Your task to perform on an android device: Go to CNN.com Image 0: 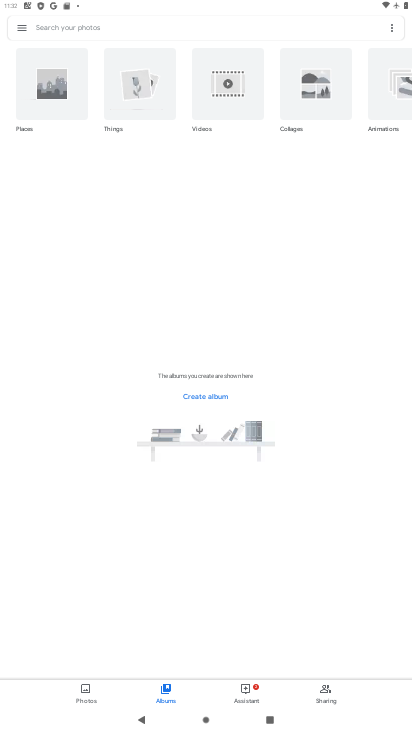
Step 0: press home button
Your task to perform on an android device: Go to CNN.com Image 1: 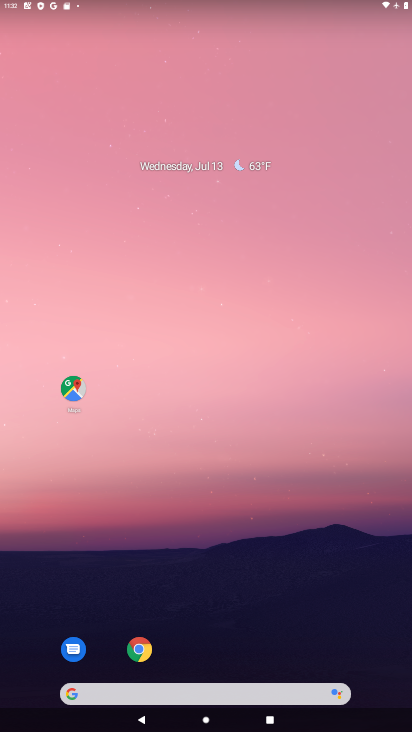
Step 1: drag from (210, 615) to (227, 111)
Your task to perform on an android device: Go to CNN.com Image 2: 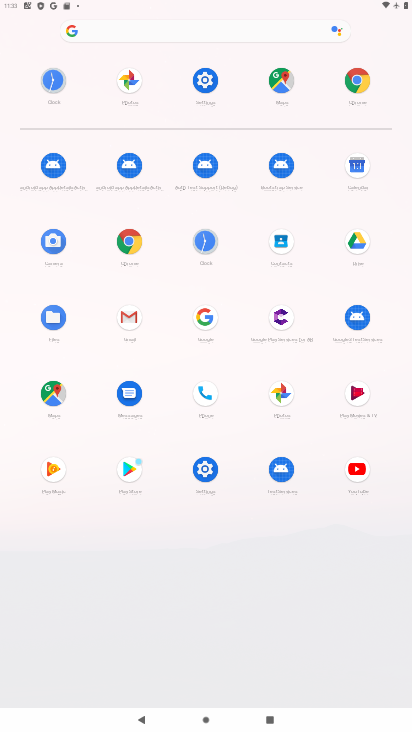
Step 2: click (362, 83)
Your task to perform on an android device: Go to CNN.com Image 3: 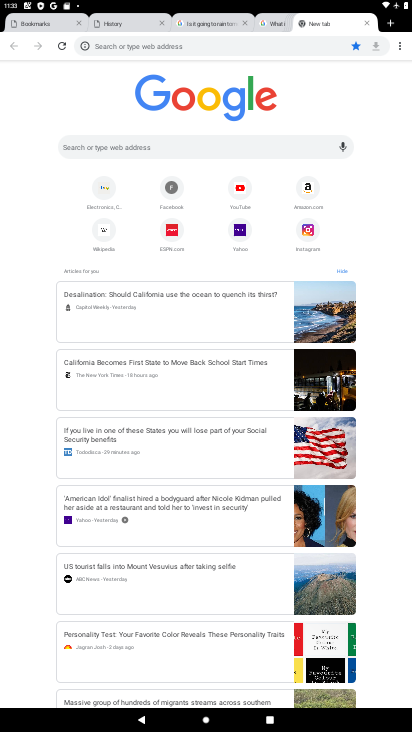
Step 3: click (188, 135)
Your task to perform on an android device: Go to CNN.com Image 4: 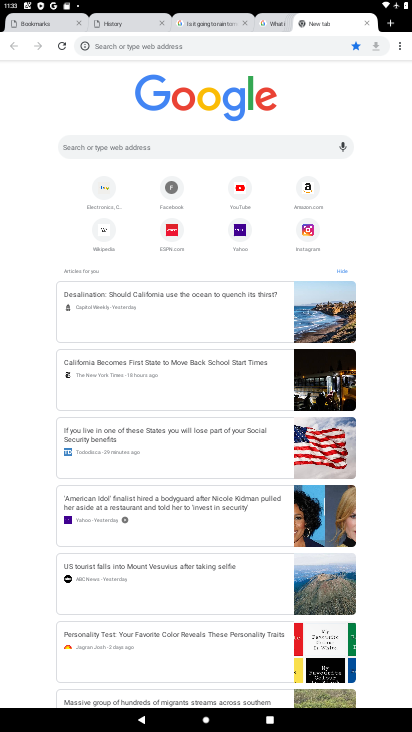
Step 4: type " CNN.com "
Your task to perform on an android device: Go to CNN.com Image 5: 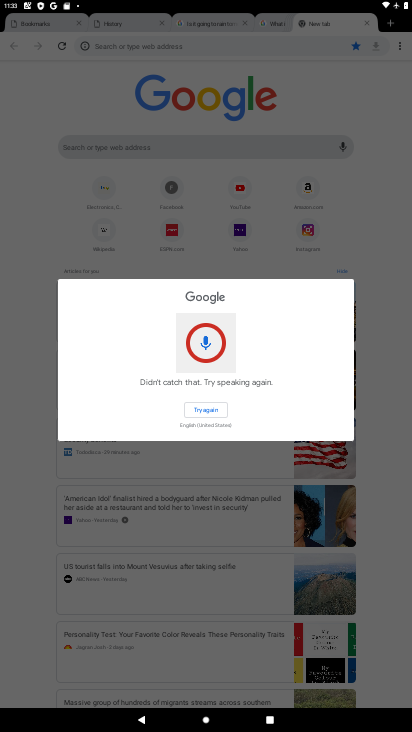
Step 5: click (333, 254)
Your task to perform on an android device: Go to CNN.com Image 6: 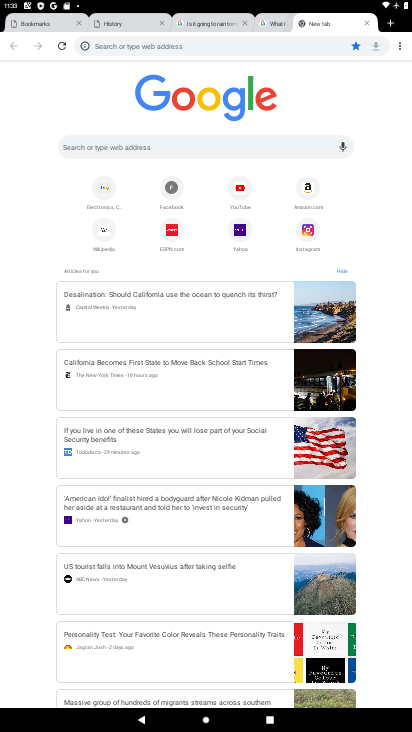
Step 6: click (217, 146)
Your task to perform on an android device: Go to CNN.com Image 7: 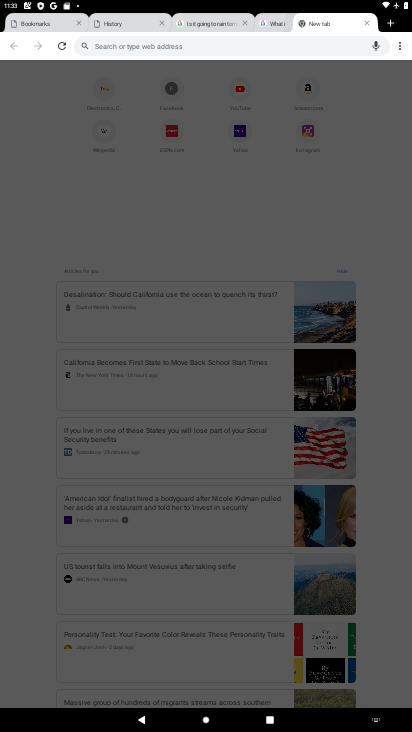
Step 7: type "CNN.com "
Your task to perform on an android device: Go to CNN.com Image 8: 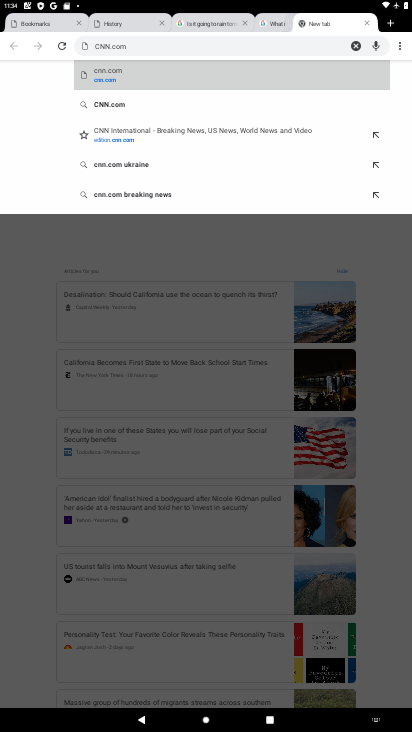
Step 8: click (173, 74)
Your task to perform on an android device: Go to CNN.com Image 9: 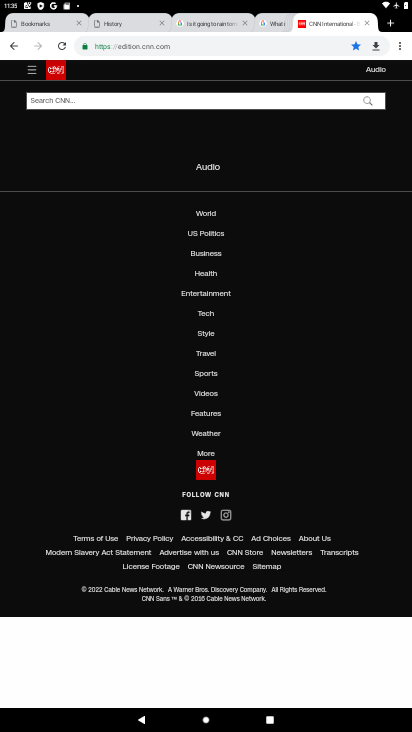
Step 9: task complete